Your task to perform on an android device: toggle sleep mode Image 0: 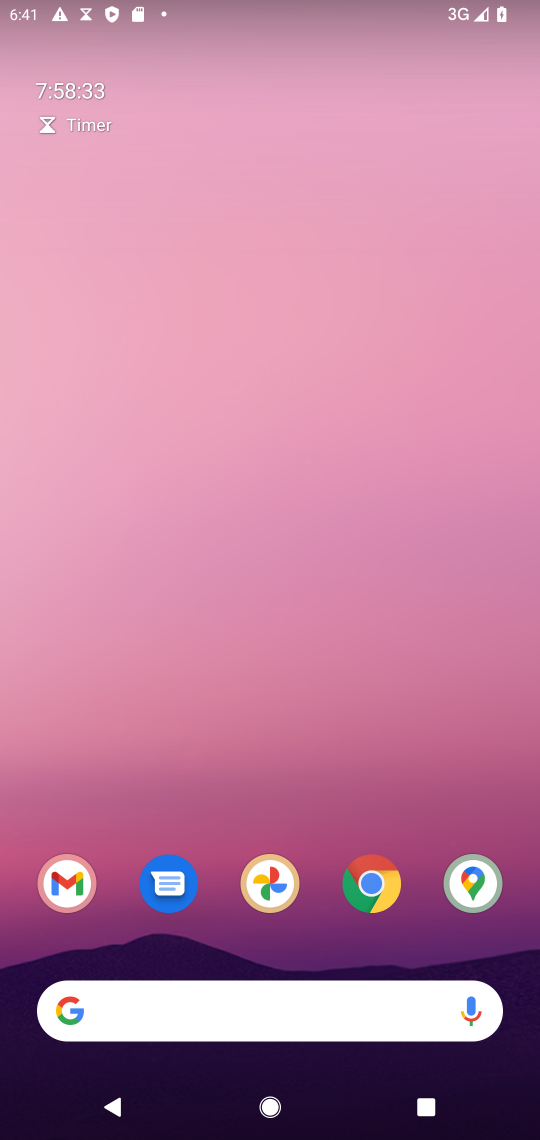
Step 0: drag from (423, 810) to (330, 267)
Your task to perform on an android device: toggle sleep mode Image 1: 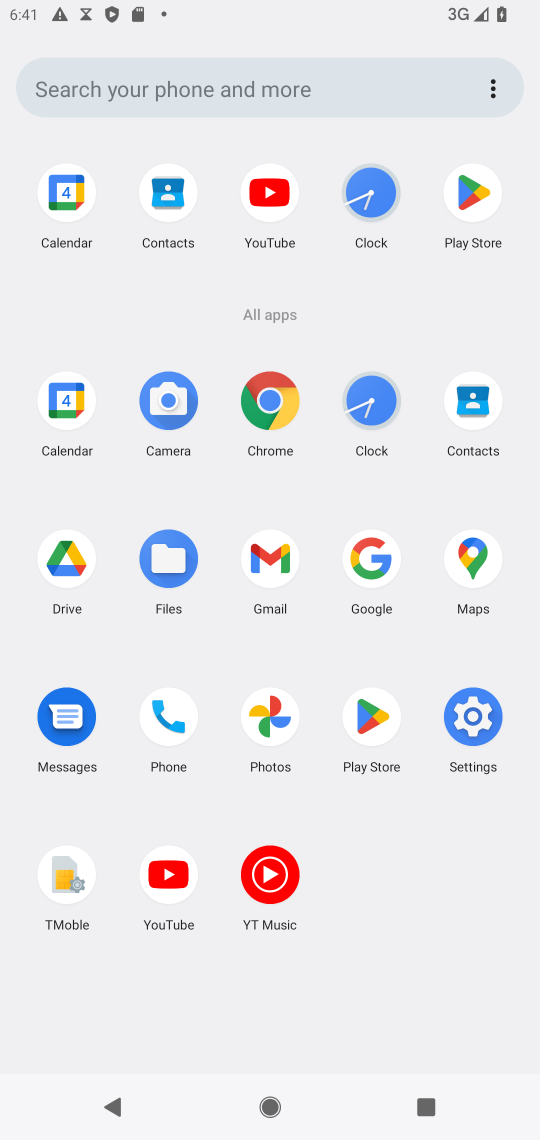
Step 1: click (482, 747)
Your task to perform on an android device: toggle sleep mode Image 2: 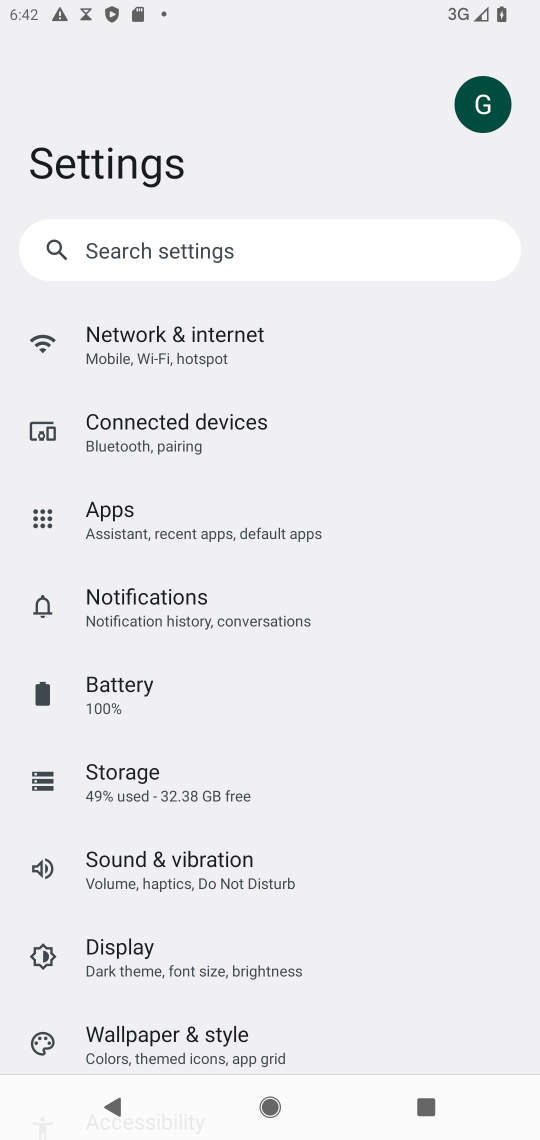
Step 2: drag from (324, 1010) to (303, 625)
Your task to perform on an android device: toggle sleep mode Image 3: 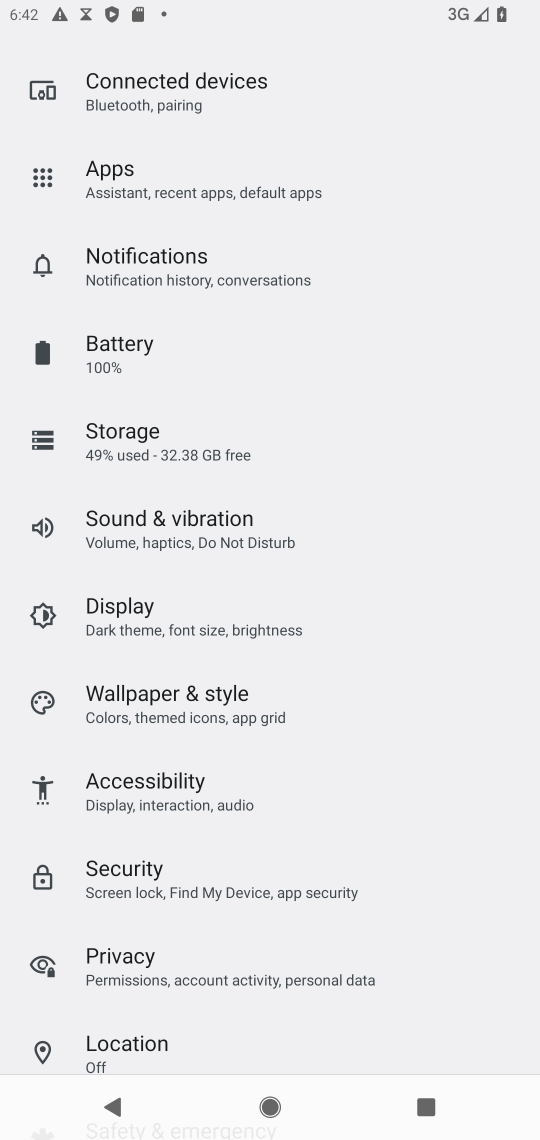
Step 3: click (200, 634)
Your task to perform on an android device: toggle sleep mode Image 4: 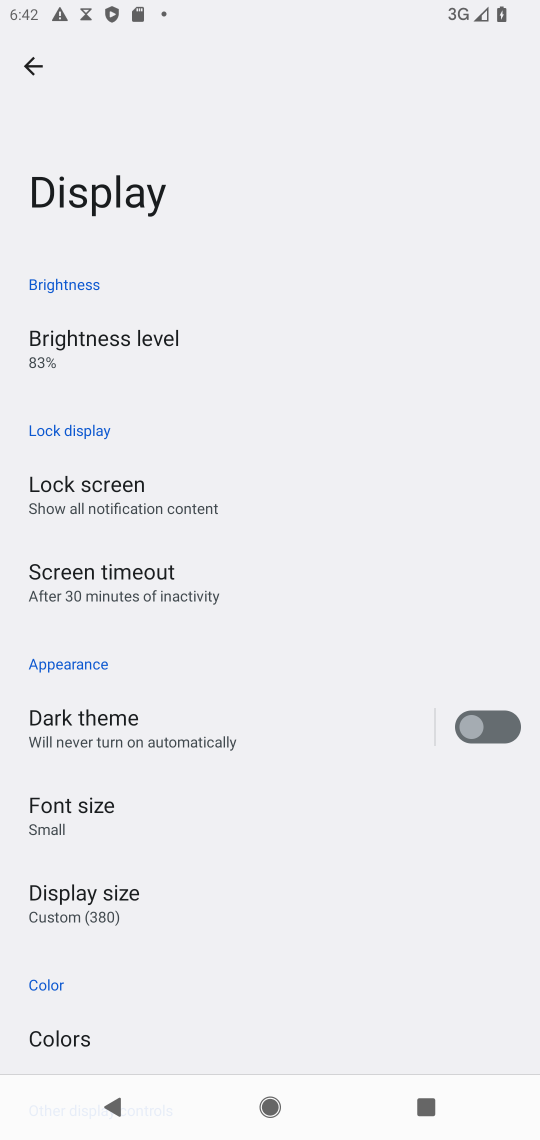
Step 4: task complete